Your task to perform on an android device: Go to battery settings Image 0: 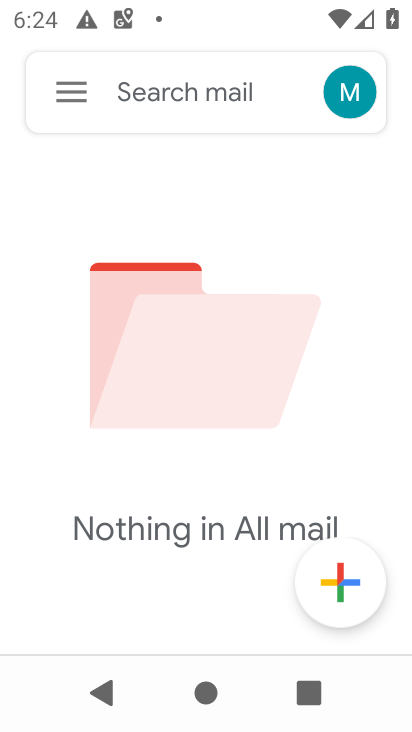
Step 0: press home button
Your task to perform on an android device: Go to battery settings Image 1: 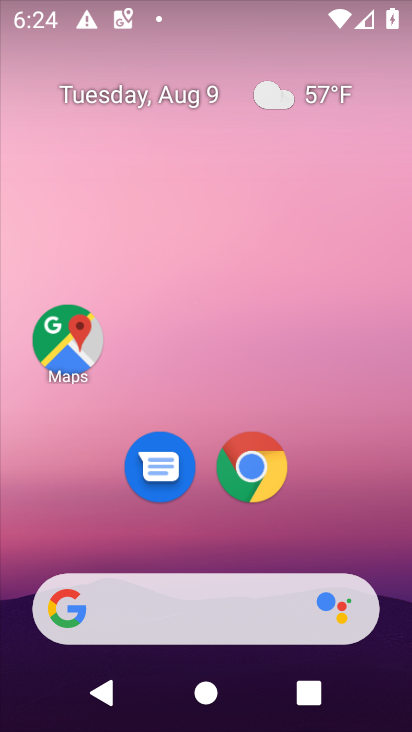
Step 1: drag from (194, 507) to (224, 90)
Your task to perform on an android device: Go to battery settings Image 2: 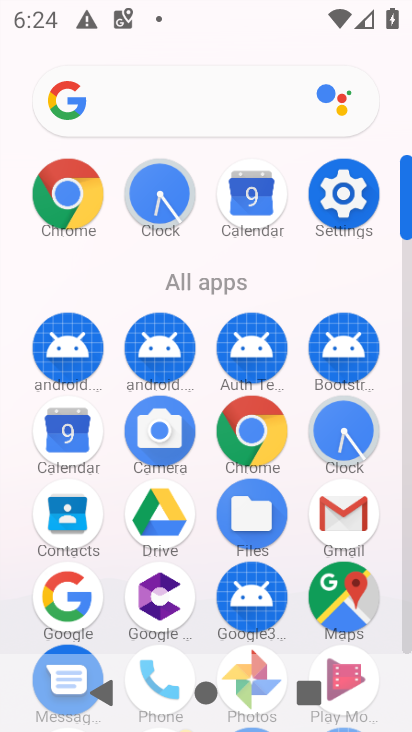
Step 2: click (350, 198)
Your task to perform on an android device: Go to battery settings Image 3: 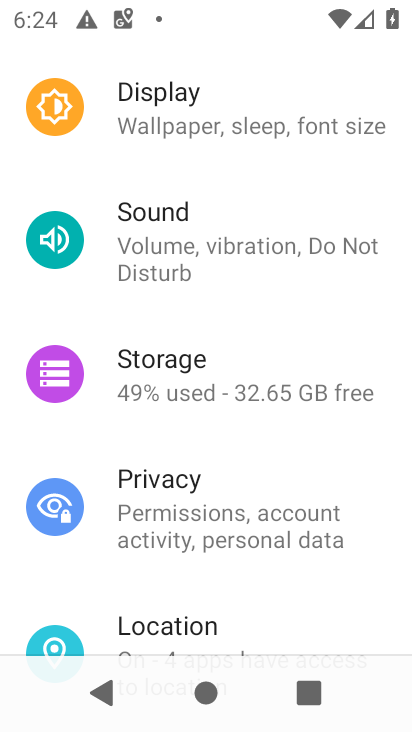
Step 3: drag from (238, 249) to (211, 553)
Your task to perform on an android device: Go to battery settings Image 4: 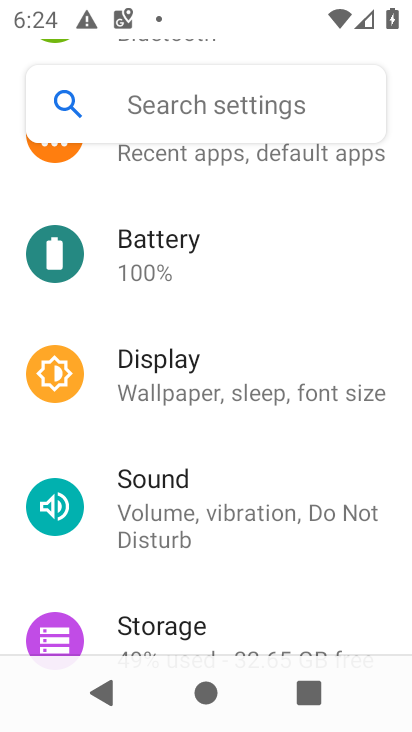
Step 4: drag from (176, 226) to (167, 382)
Your task to perform on an android device: Go to battery settings Image 5: 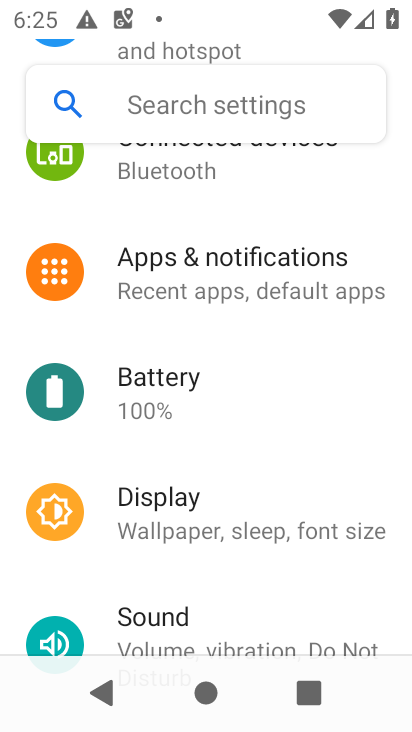
Step 5: click (146, 381)
Your task to perform on an android device: Go to battery settings Image 6: 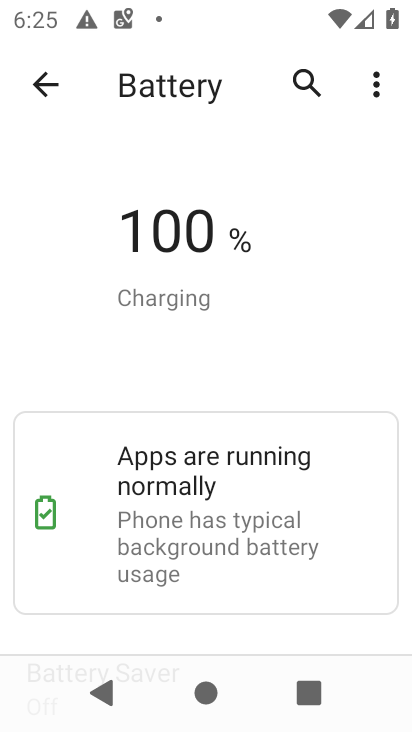
Step 6: task complete